Your task to perform on an android device: Open location settings Image 0: 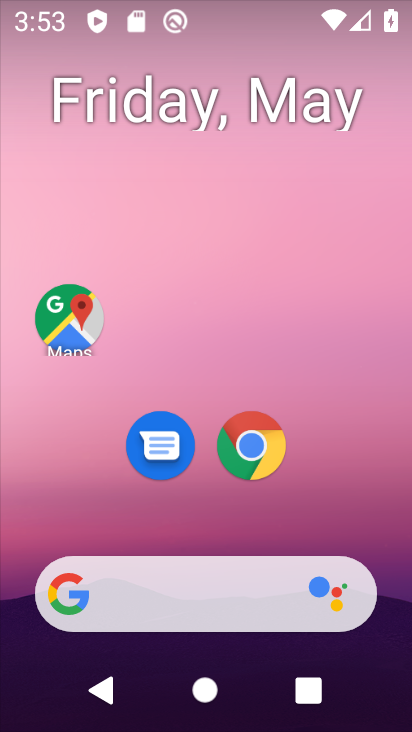
Step 0: drag from (140, 495) to (187, 104)
Your task to perform on an android device: Open location settings Image 1: 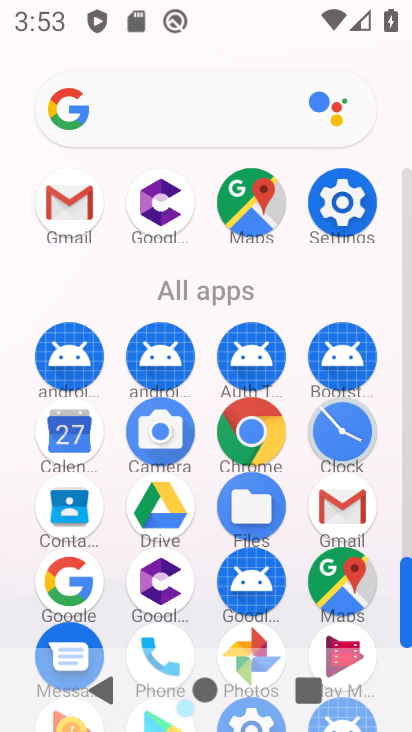
Step 1: click (338, 209)
Your task to perform on an android device: Open location settings Image 2: 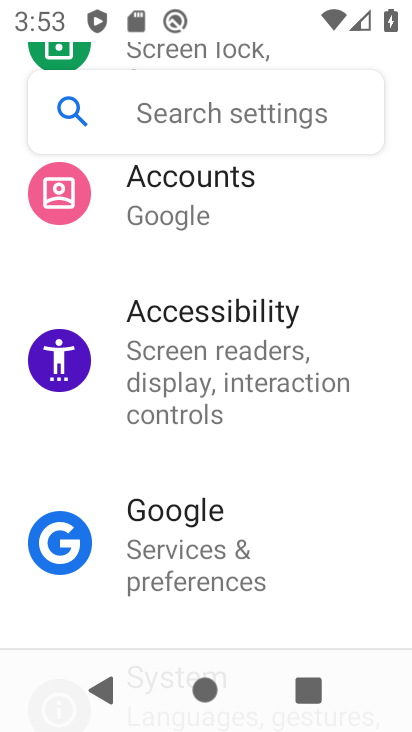
Step 2: drag from (264, 220) to (188, 594)
Your task to perform on an android device: Open location settings Image 3: 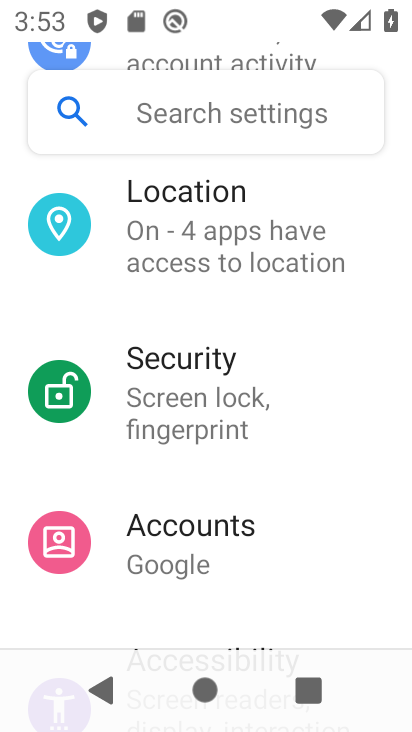
Step 3: click (197, 238)
Your task to perform on an android device: Open location settings Image 4: 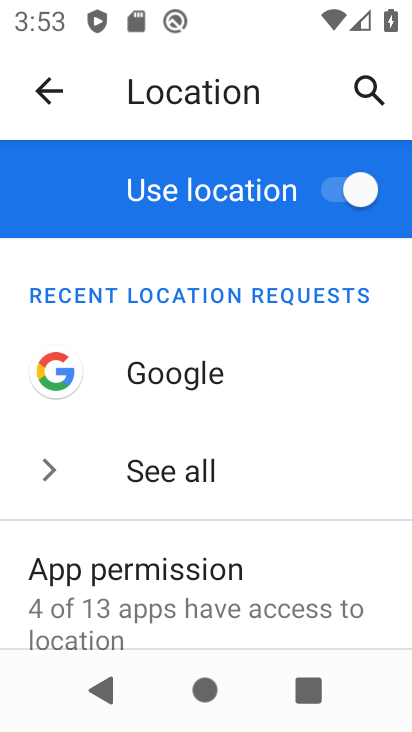
Step 4: task complete